Your task to perform on an android device: Open Google Chrome and open the bookmarks view Image 0: 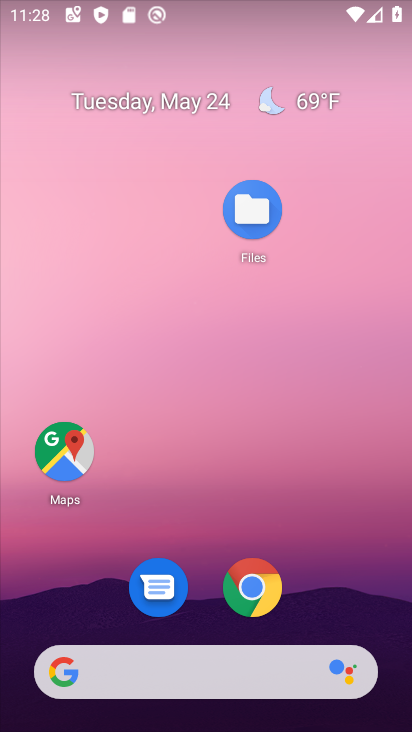
Step 0: click (261, 592)
Your task to perform on an android device: Open Google Chrome and open the bookmarks view Image 1: 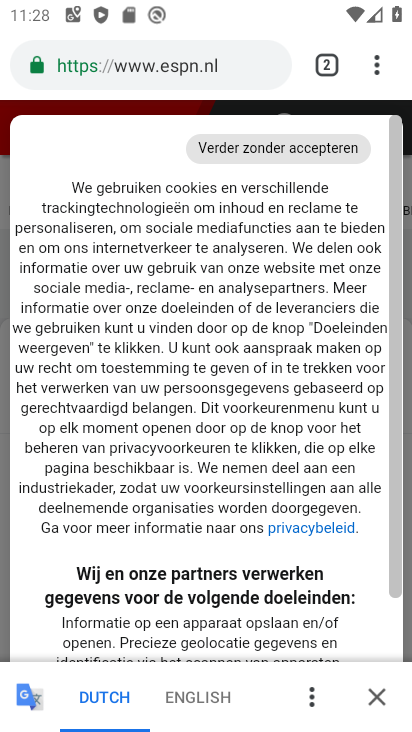
Step 1: click (374, 68)
Your task to perform on an android device: Open Google Chrome and open the bookmarks view Image 2: 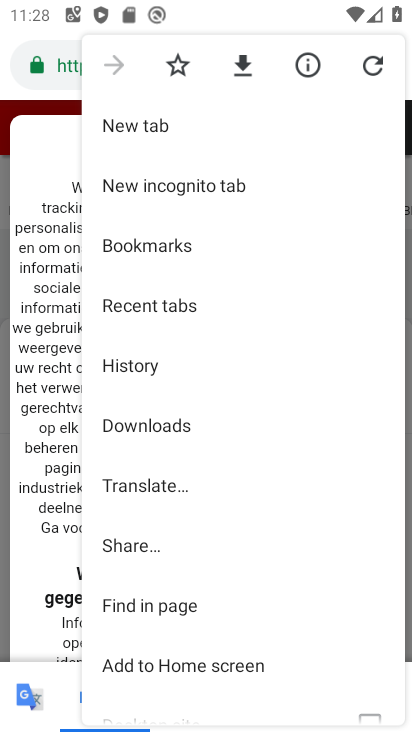
Step 2: click (167, 245)
Your task to perform on an android device: Open Google Chrome and open the bookmarks view Image 3: 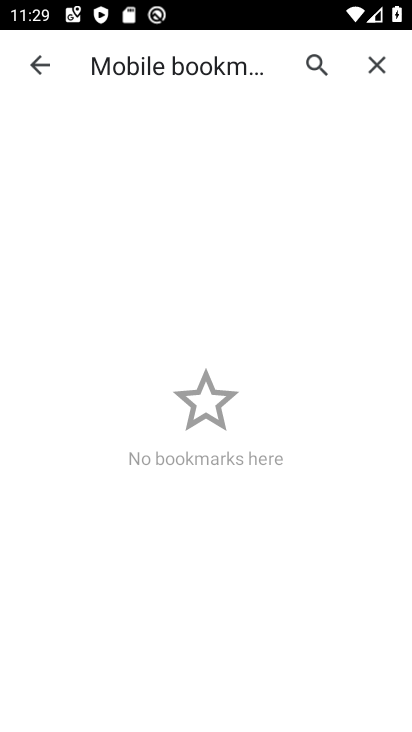
Step 3: task complete